Your task to perform on an android device: add a contact Image 0: 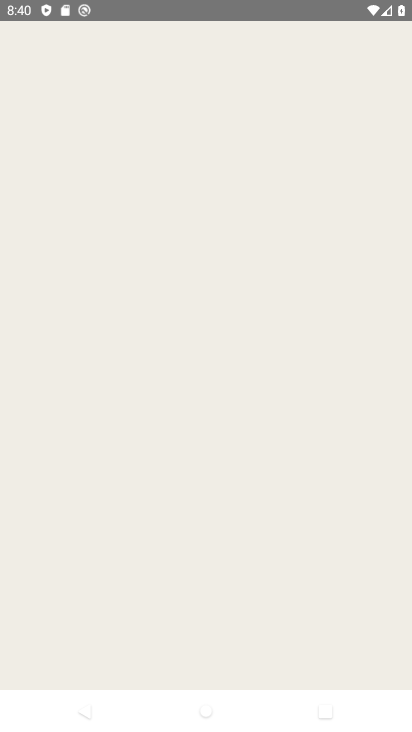
Step 0: click (231, 61)
Your task to perform on an android device: add a contact Image 1: 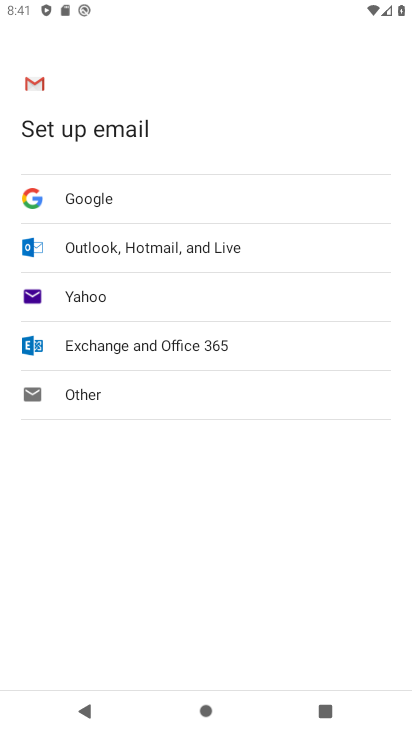
Step 1: press back button
Your task to perform on an android device: add a contact Image 2: 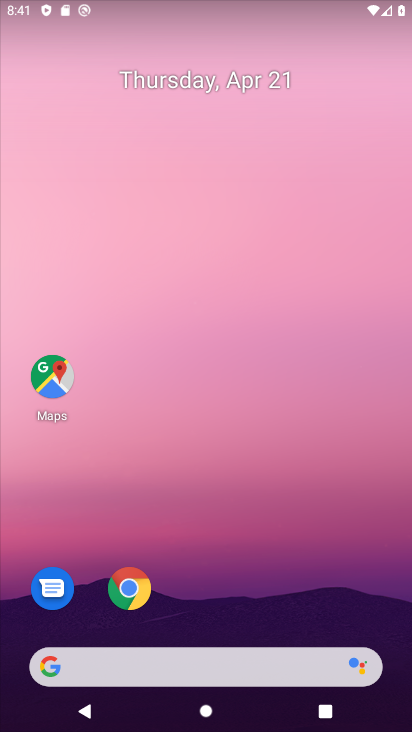
Step 2: drag from (238, 548) to (198, 10)
Your task to perform on an android device: add a contact Image 3: 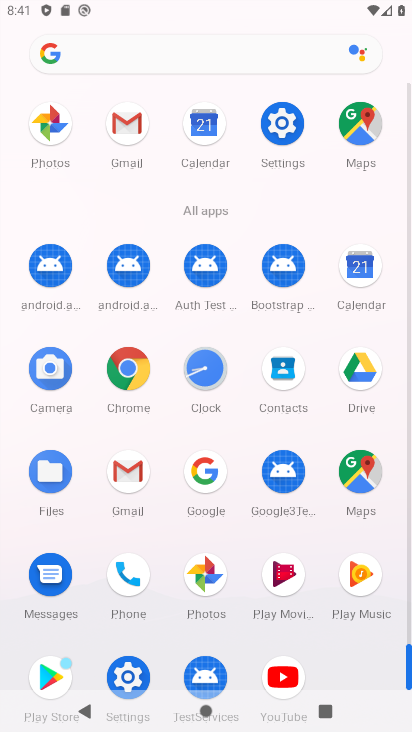
Step 3: click (283, 368)
Your task to perform on an android device: add a contact Image 4: 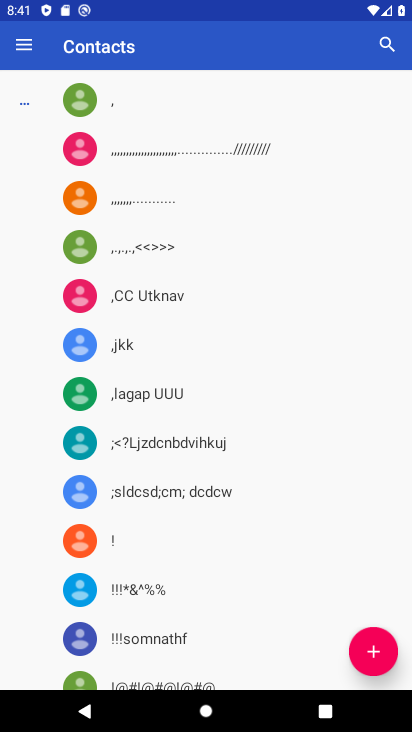
Step 4: click (391, 629)
Your task to perform on an android device: add a contact Image 5: 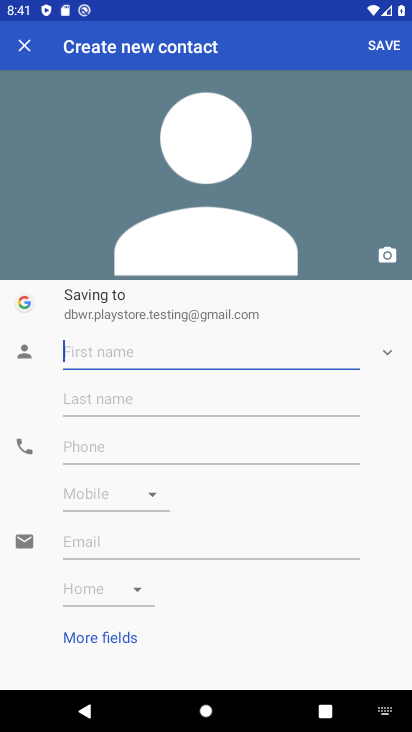
Step 5: type "Asdssdff"
Your task to perform on an android device: add a contact Image 6: 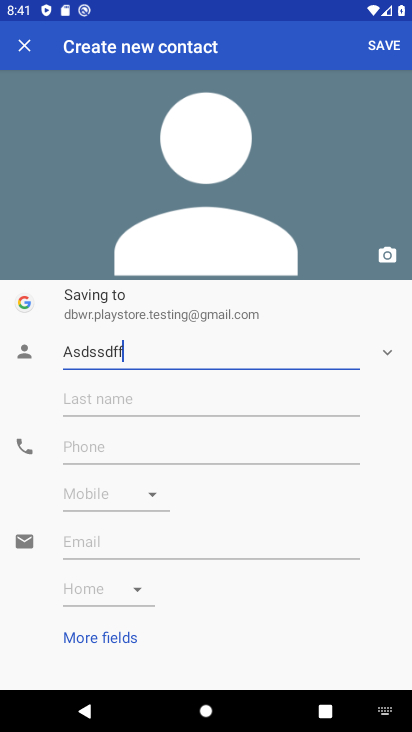
Step 6: click (109, 445)
Your task to perform on an android device: add a contact Image 7: 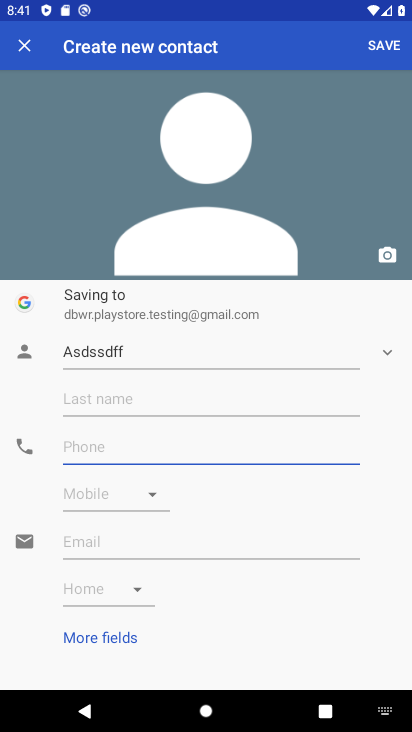
Step 7: type "654580--=-097565"
Your task to perform on an android device: add a contact Image 8: 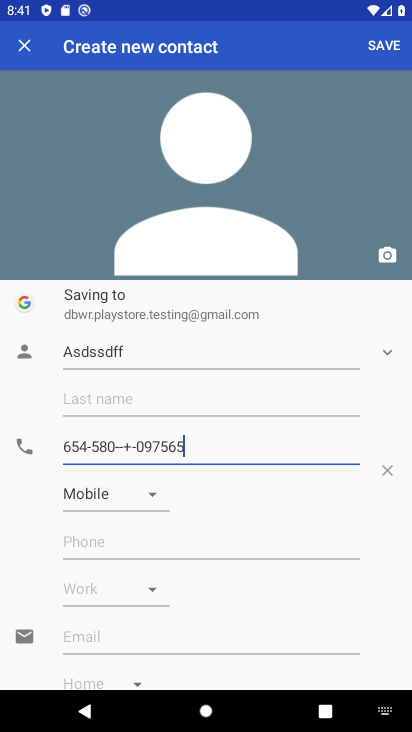
Step 8: type ""
Your task to perform on an android device: add a contact Image 9: 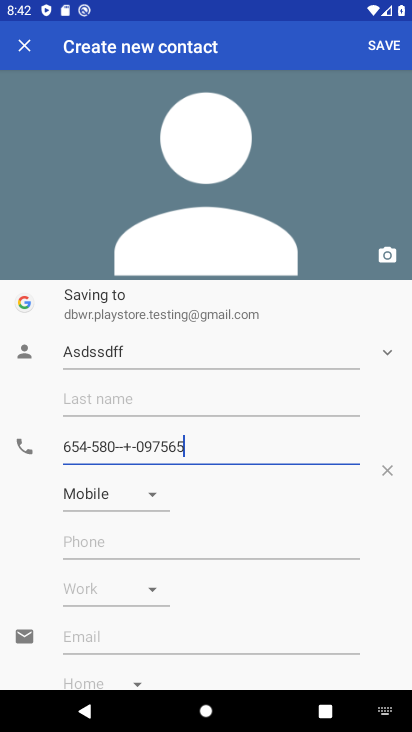
Step 9: click (397, 54)
Your task to perform on an android device: add a contact Image 10: 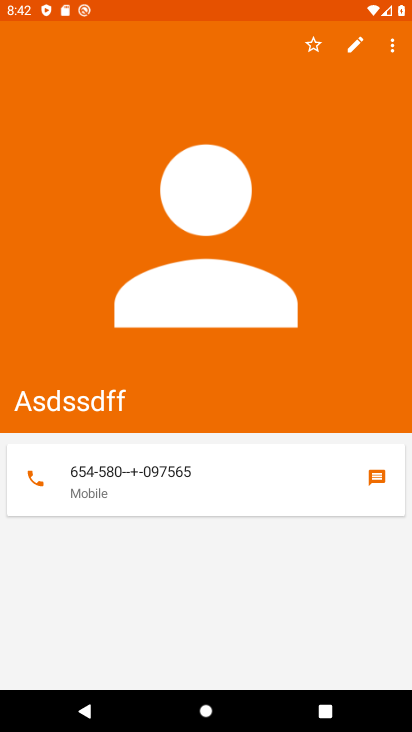
Step 10: task complete